Your task to perform on an android device: toggle location history Image 0: 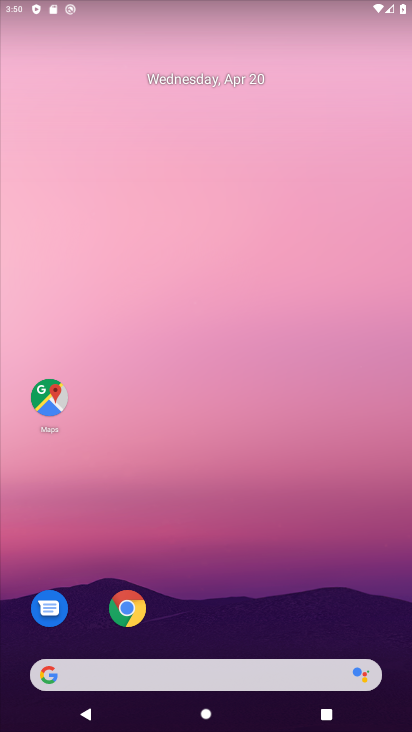
Step 0: drag from (197, 647) to (400, 289)
Your task to perform on an android device: toggle location history Image 1: 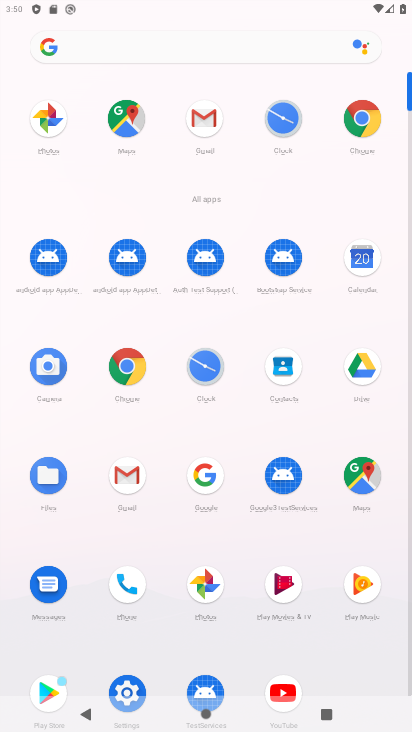
Step 1: click (116, 690)
Your task to perform on an android device: toggle location history Image 2: 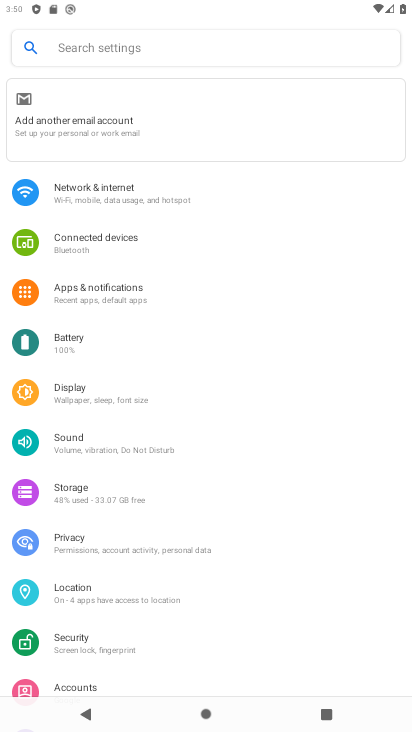
Step 2: click (75, 598)
Your task to perform on an android device: toggle location history Image 3: 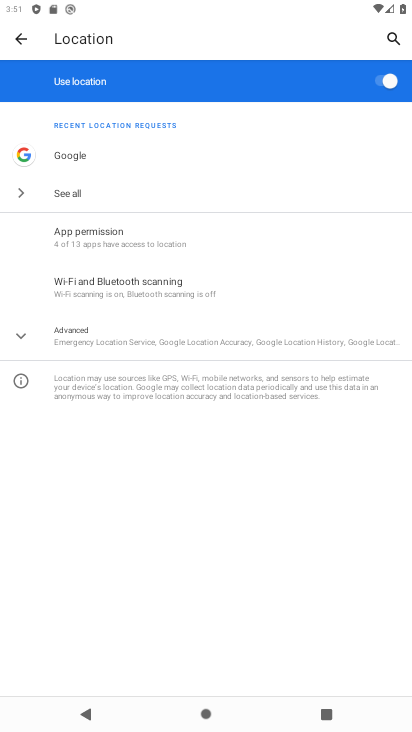
Step 3: click (59, 330)
Your task to perform on an android device: toggle location history Image 4: 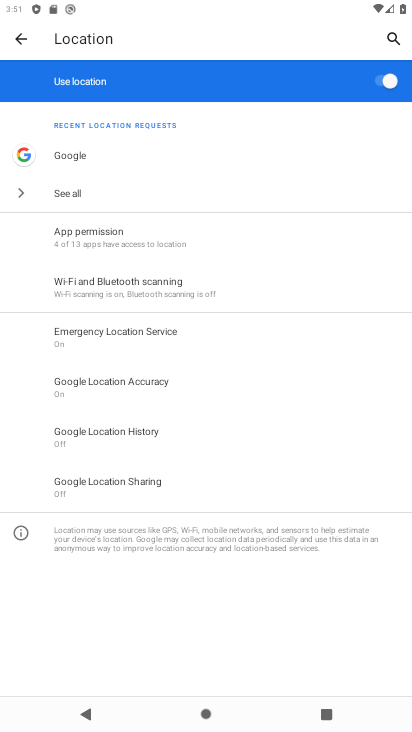
Step 4: click (156, 424)
Your task to perform on an android device: toggle location history Image 5: 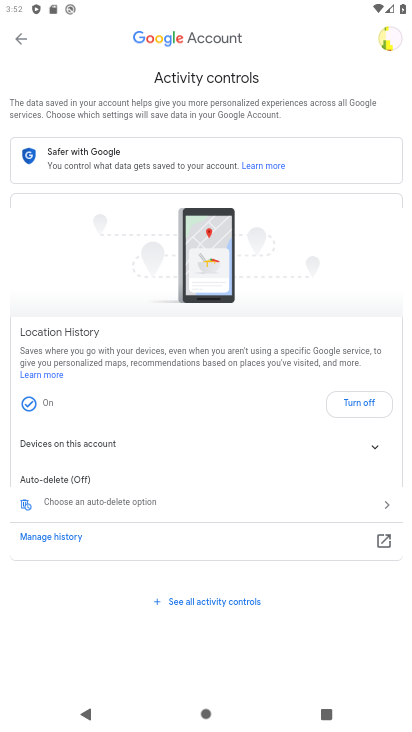
Step 5: click (372, 411)
Your task to perform on an android device: toggle location history Image 6: 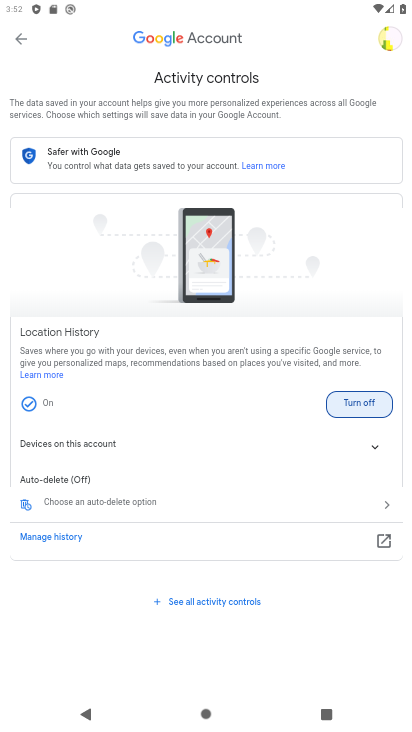
Step 6: task complete